Your task to perform on an android device: allow notifications from all sites in the chrome app Image 0: 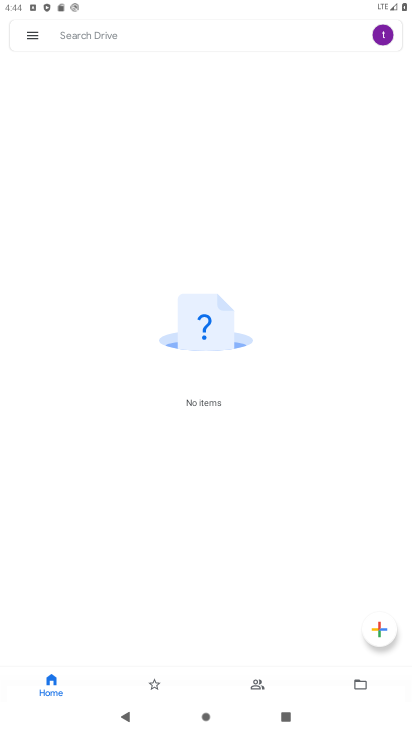
Step 0: press home button
Your task to perform on an android device: allow notifications from all sites in the chrome app Image 1: 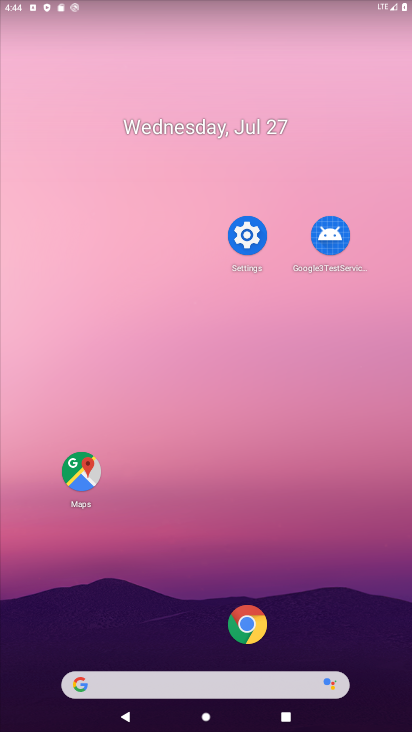
Step 1: click (266, 229)
Your task to perform on an android device: allow notifications from all sites in the chrome app Image 2: 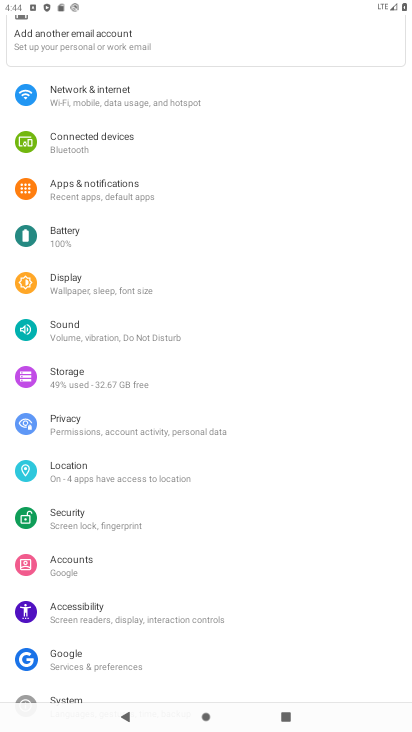
Step 2: click (63, 186)
Your task to perform on an android device: allow notifications from all sites in the chrome app Image 3: 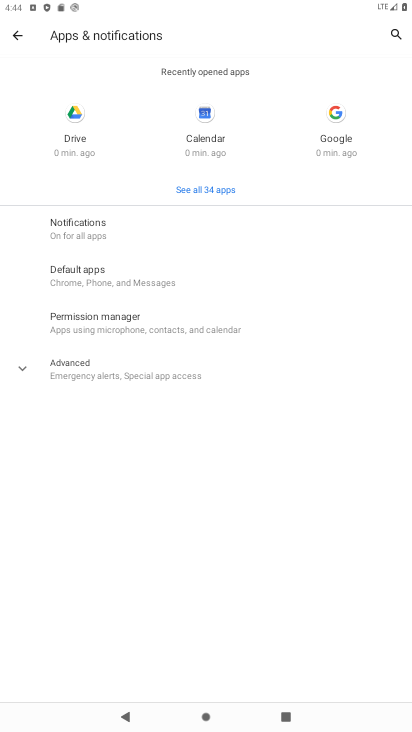
Step 3: click (202, 191)
Your task to perform on an android device: allow notifications from all sites in the chrome app Image 4: 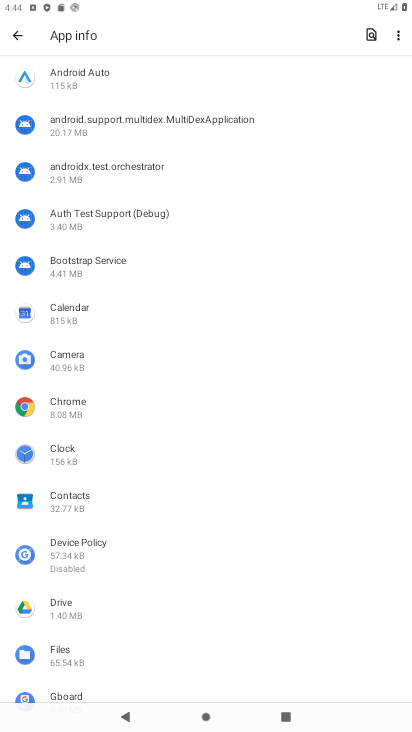
Step 4: click (114, 402)
Your task to perform on an android device: allow notifications from all sites in the chrome app Image 5: 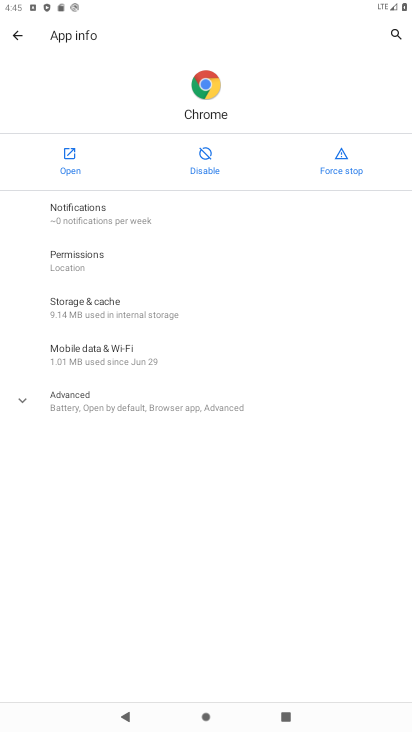
Step 5: click (136, 228)
Your task to perform on an android device: allow notifications from all sites in the chrome app Image 6: 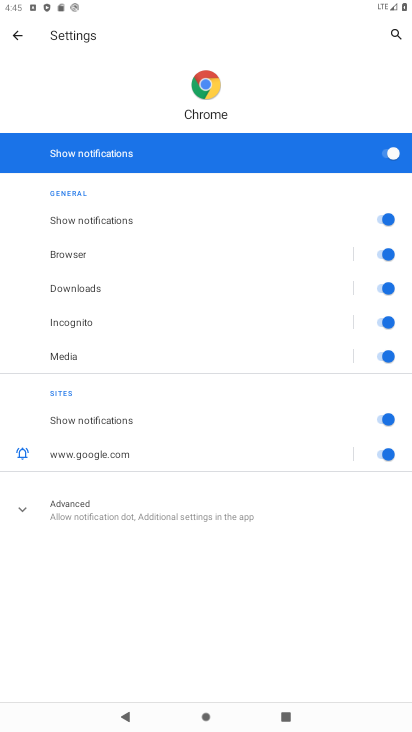
Step 6: task complete